Your task to perform on an android device: Go to CNN.com Image 0: 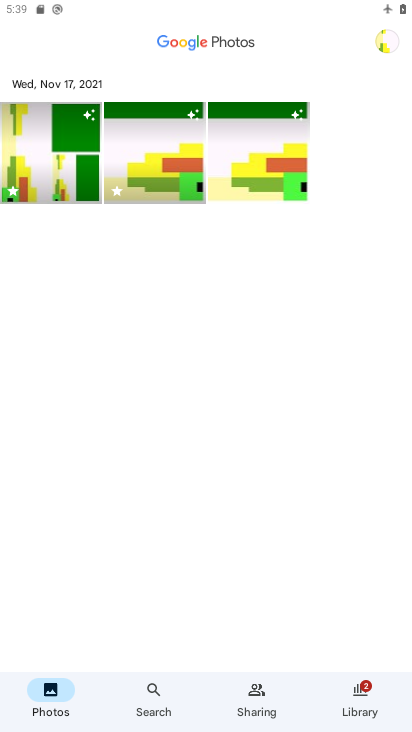
Step 0: press home button
Your task to perform on an android device: Go to CNN.com Image 1: 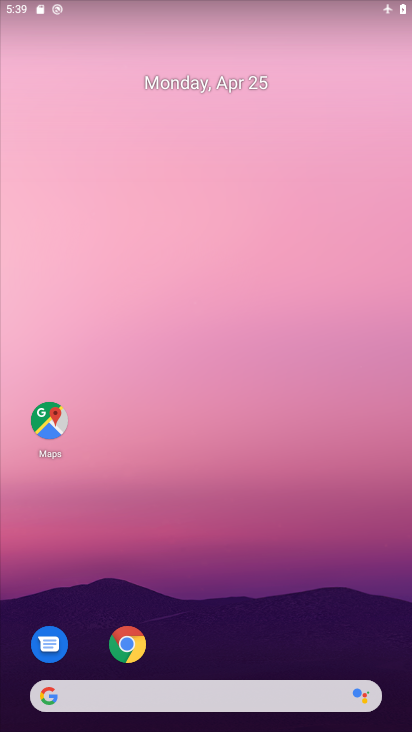
Step 1: click (136, 644)
Your task to perform on an android device: Go to CNN.com Image 2: 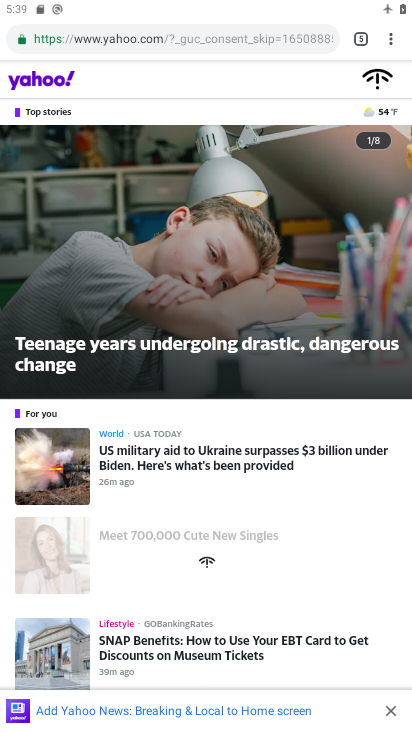
Step 2: click (354, 39)
Your task to perform on an android device: Go to CNN.com Image 3: 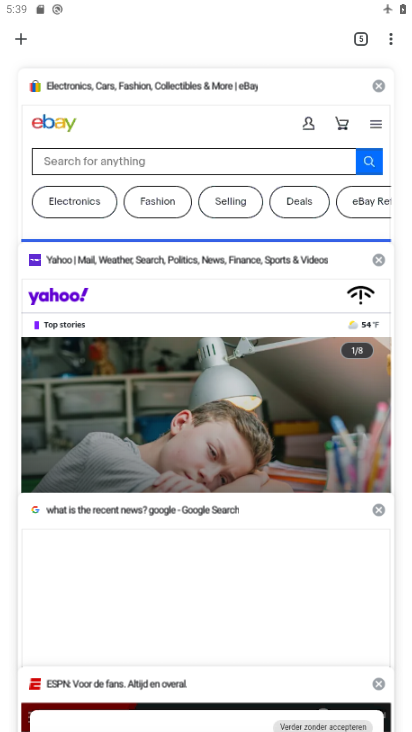
Step 3: click (20, 37)
Your task to perform on an android device: Go to CNN.com Image 4: 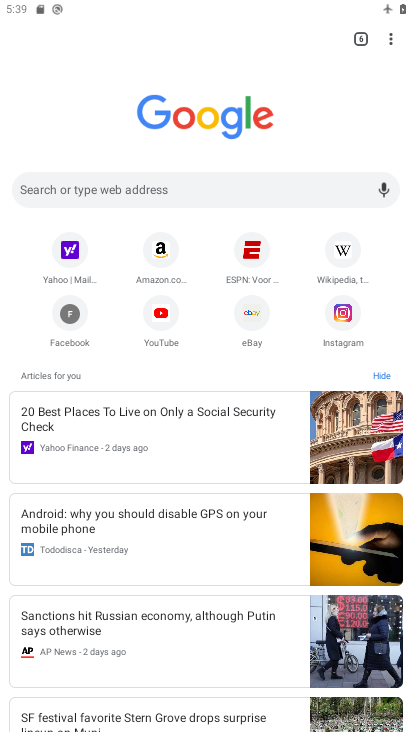
Step 4: click (177, 187)
Your task to perform on an android device: Go to CNN.com Image 5: 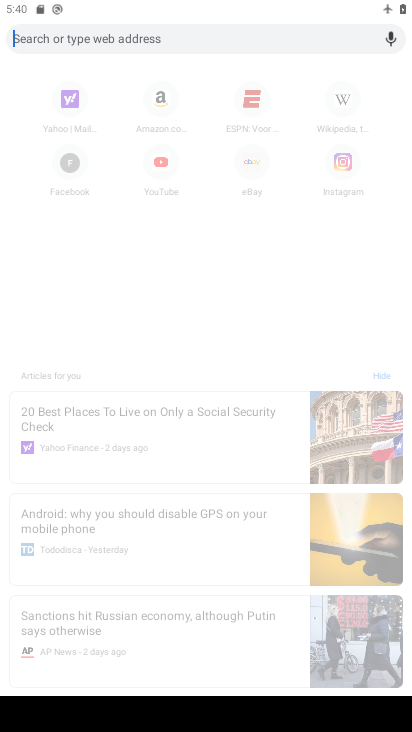
Step 5: type "CNN.com"
Your task to perform on an android device: Go to CNN.com Image 6: 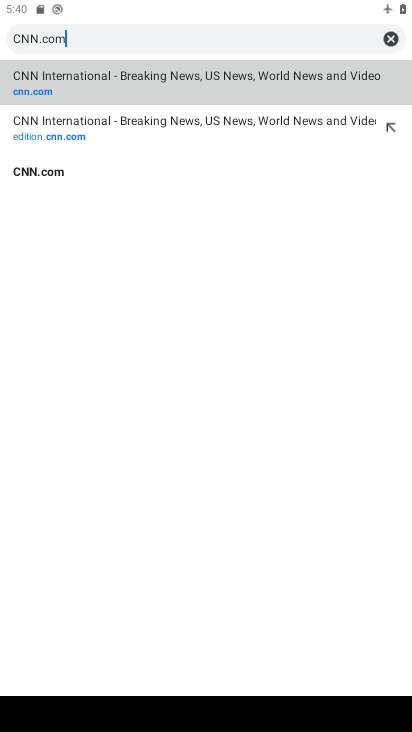
Step 6: click (236, 108)
Your task to perform on an android device: Go to CNN.com Image 7: 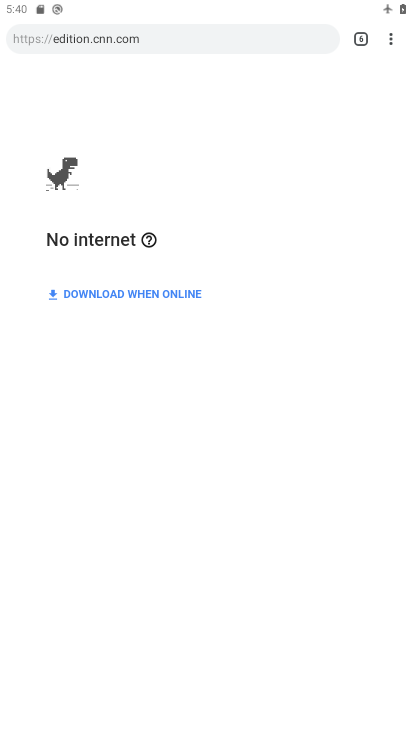
Step 7: task complete